Your task to perform on an android device: Open Android settings Image 0: 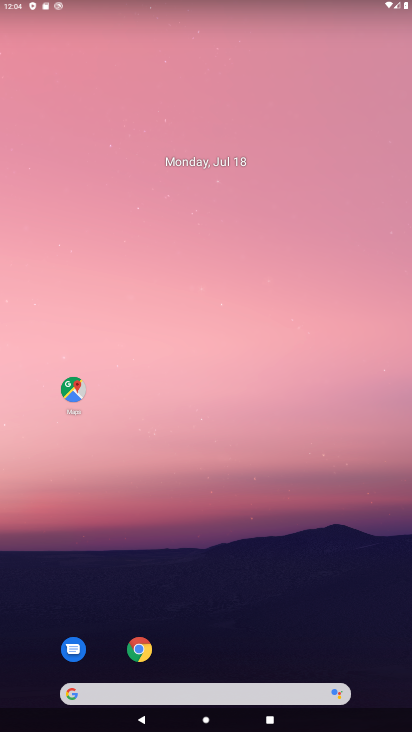
Step 0: drag from (60, 644) to (218, 203)
Your task to perform on an android device: Open Android settings Image 1: 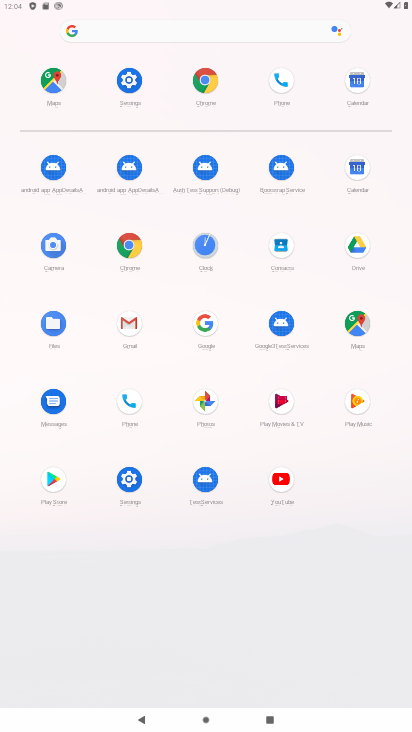
Step 1: click (128, 499)
Your task to perform on an android device: Open Android settings Image 2: 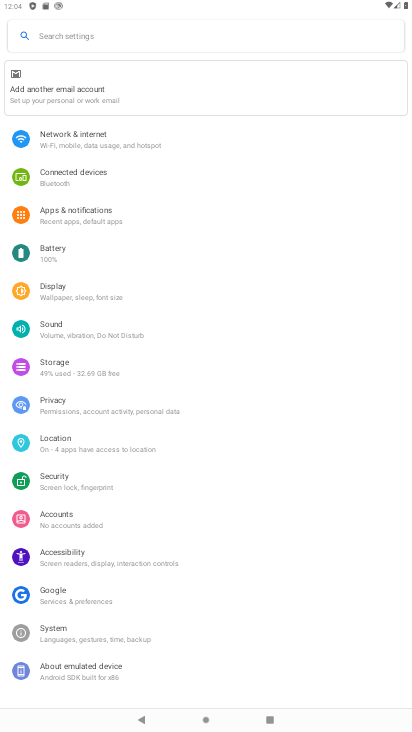
Step 2: drag from (211, 627) to (251, 410)
Your task to perform on an android device: Open Android settings Image 3: 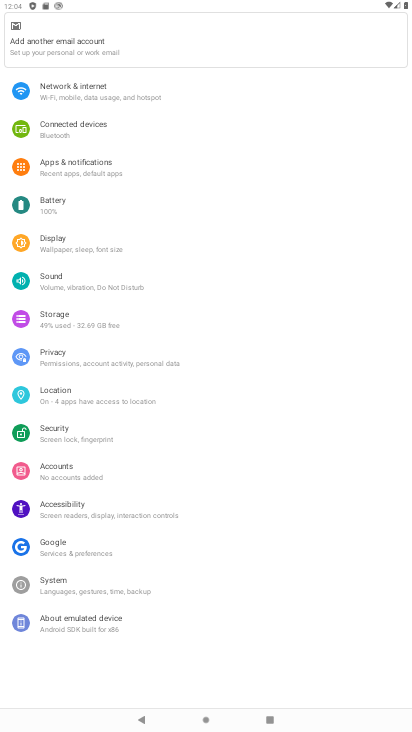
Step 3: click (87, 620)
Your task to perform on an android device: Open Android settings Image 4: 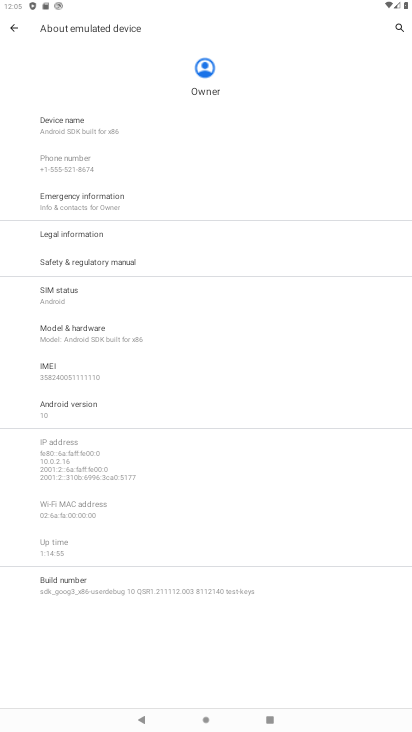
Step 4: click (83, 405)
Your task to perform on an android device: Open Android settings Image 5: 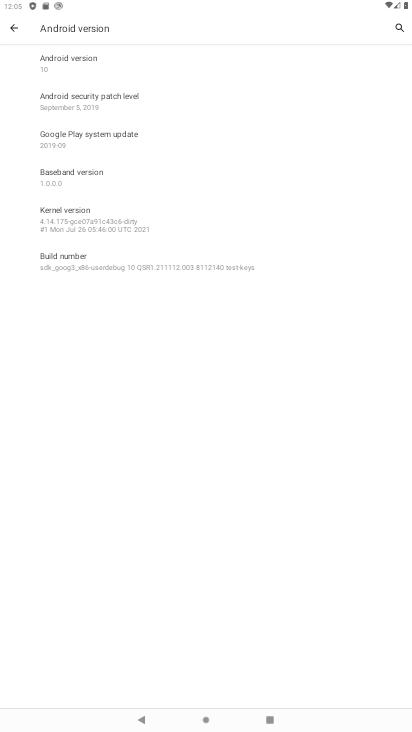
Step 5: task complete